Your task to perform on an android device: Open battery settings Image 0: 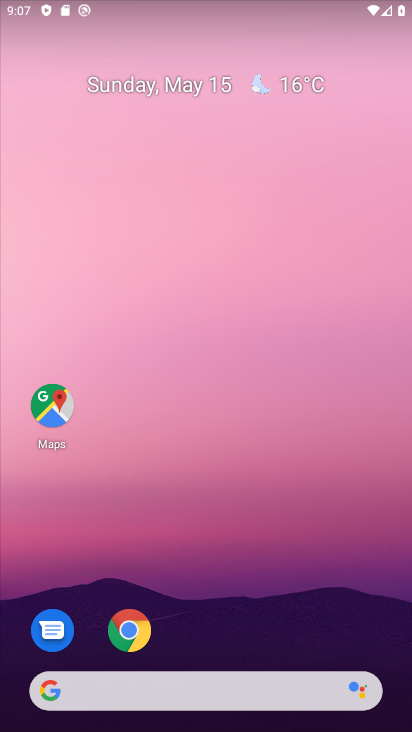
Step 0: click (175, 233)
Your task to perform on an android device: Open battery settings Image 1: 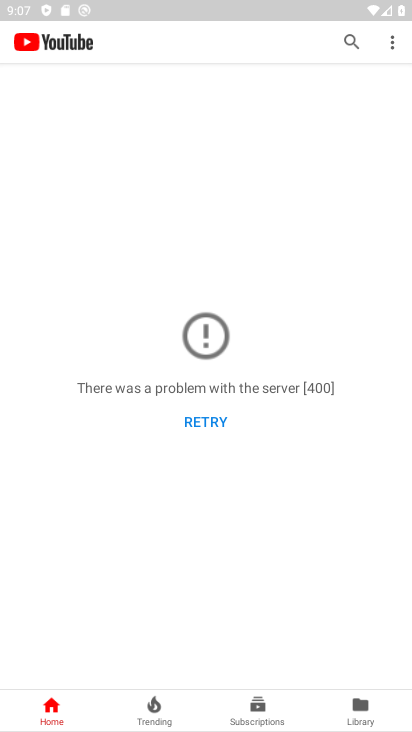
Step 1: press home button
Your task to perform on an android device: Open battery settings Image 2: 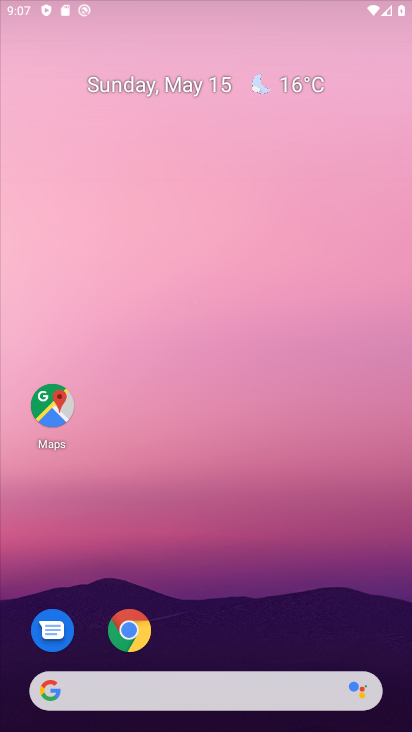
Step 2: drag from (212, 630) to (226, 72)
Your task to perform on an android device: Open battery settings Image 3: 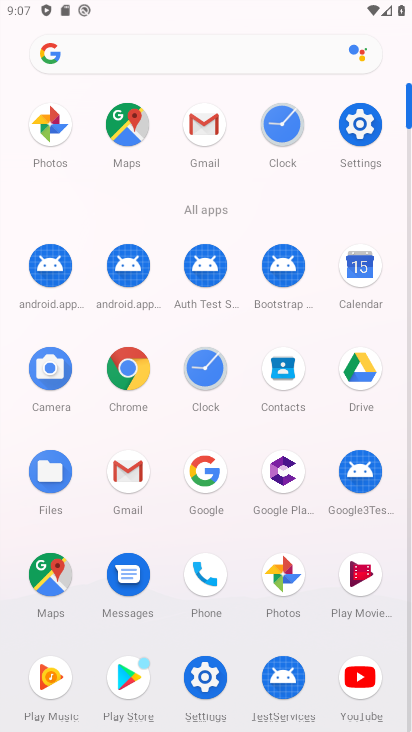
Step 3: click (384, 129)
Your task to perform on an android device: Open battery settings Image 4: 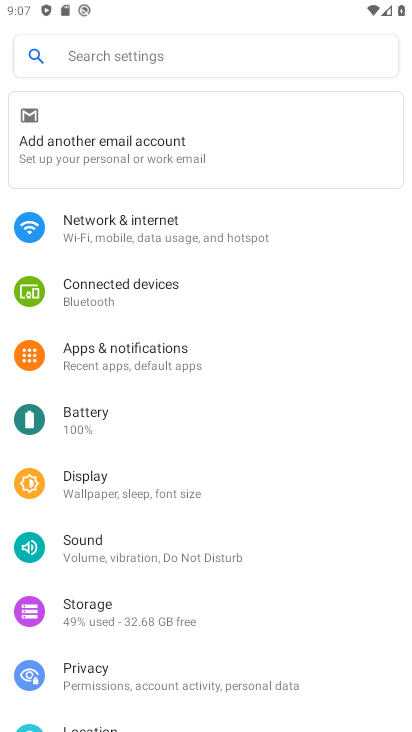
Step 4: click (131, 433)
Your task to perform on an android device: Open battery settings Image 5: 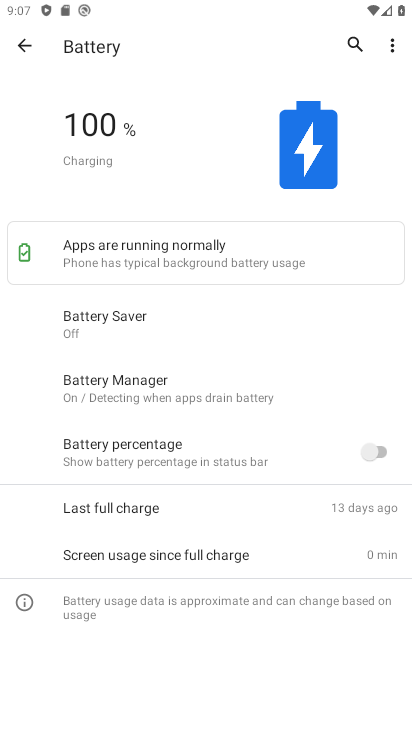
Step 5: task complete